Your task to perform on an android device: change timer sound Image 0: 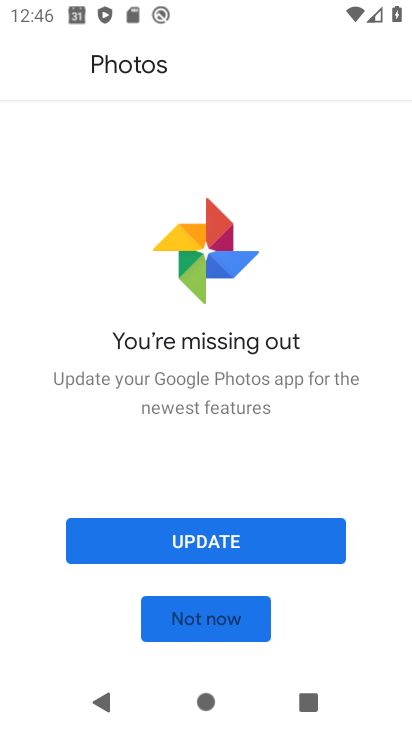
Step 0: press home button
Your task to perform on an android device: change timer sound Image 1: 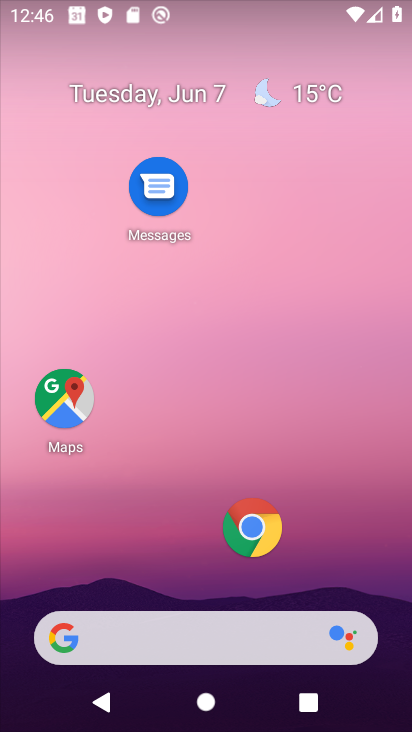
Step 1: drag from (199, 631) to (193, 331)
Your task to perform on an android device: change timer sound Image 2: 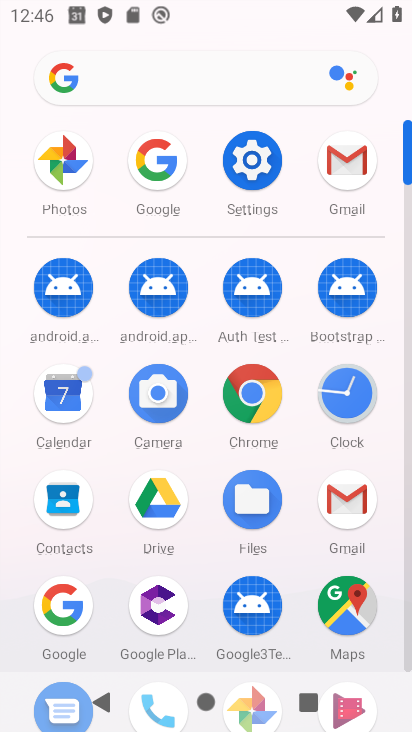
Step 2: click (356, 408)
Your task to perform on an android device: change timer sound Image 3: 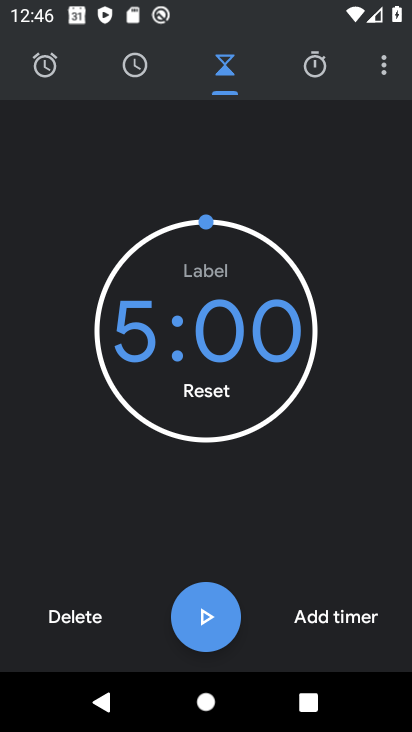
Step 3: click (391, 68)
Your task to perform on an android device: change timer sound Image 4: 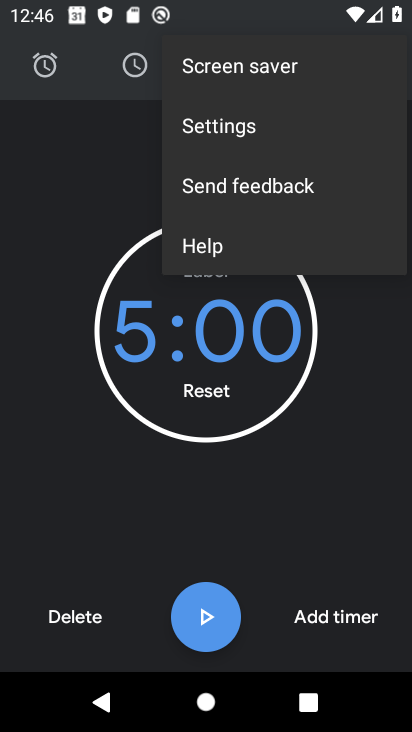
Step 4: click (210, 125)
Your task to perform on an android device: change timer sound Image 5: 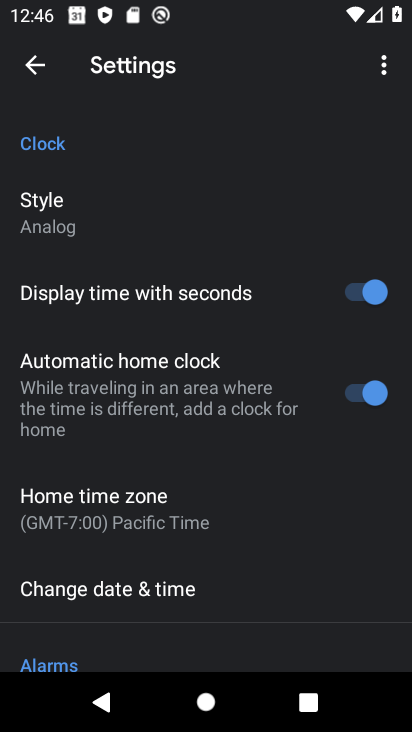
Step 5: drag from (113, 594) to (109, 310)
Your task to perform on an android device: change timer sound Image 6: 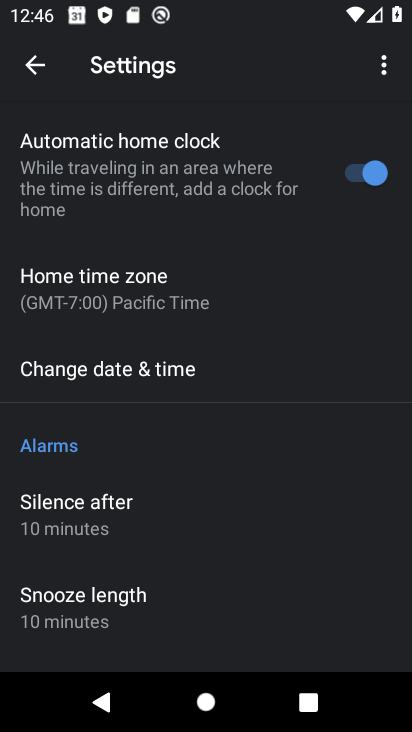
Step 6: drag from (92, 643) to (98, 319)
Your task to perform on an android device: change timer sound Image 7: 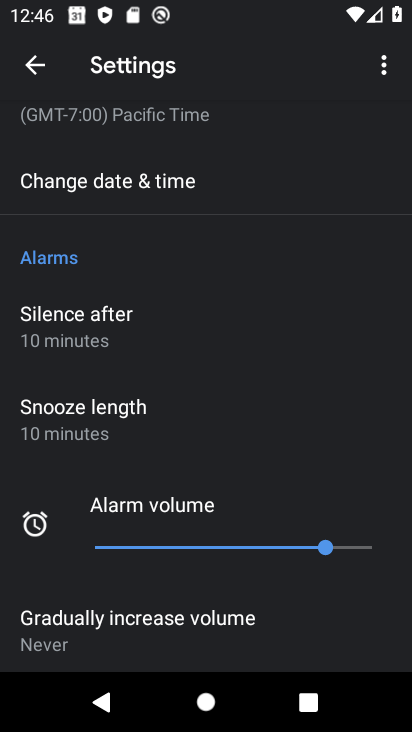
Step 7: drag from (145, 645) to (146, 341)
Your task to perform on an android device: change timer sound Image 8: 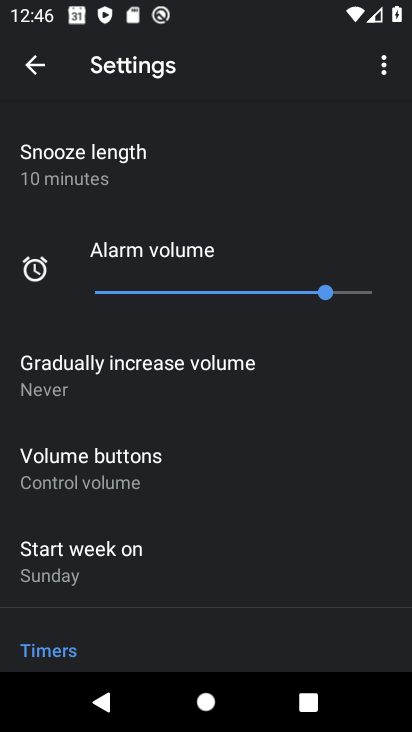
Step 8: drag from (175, 588) to (165, 328)
Your task to perform on an android device: change timer sound Image 9: 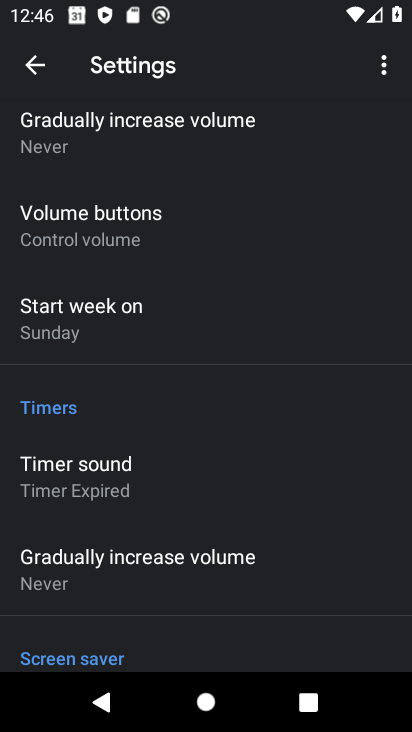
Step 9: click (113, 487)
Your task to perform on an android device: change timer sound Image 10: 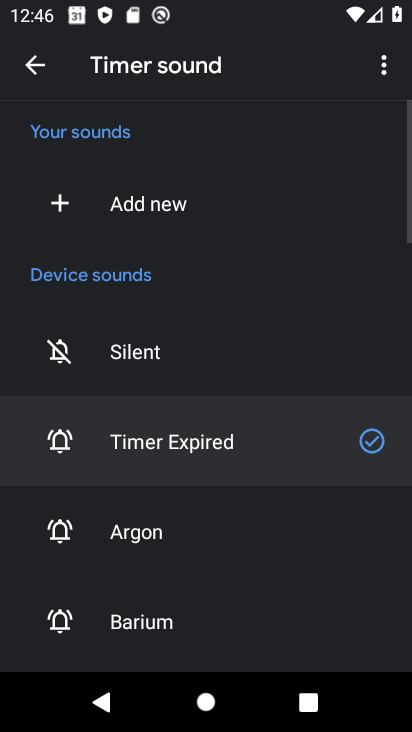
Step 10: click (143, 533)
Your task to perform on an android device: change timer sound Image 11: 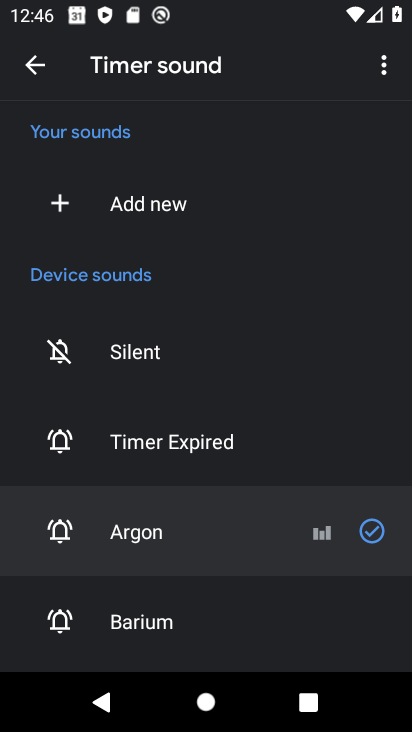
Step 11: task complete